Your task to perform on an android device: Go to CNN.com Image 0: 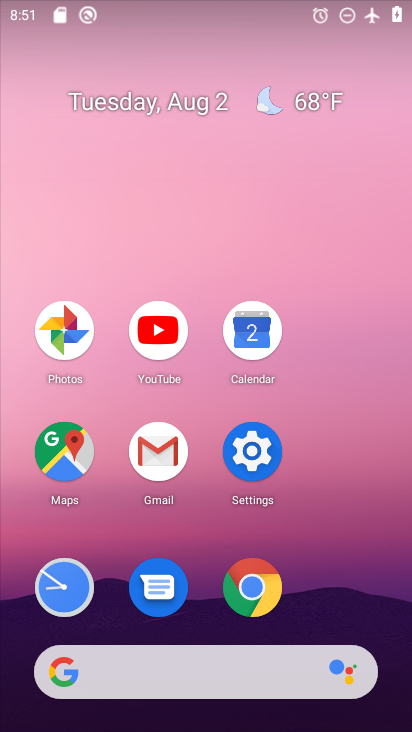
Step 0: click (260, 586)
Your task to perform on an android device: Go to CNN.com Image 1: 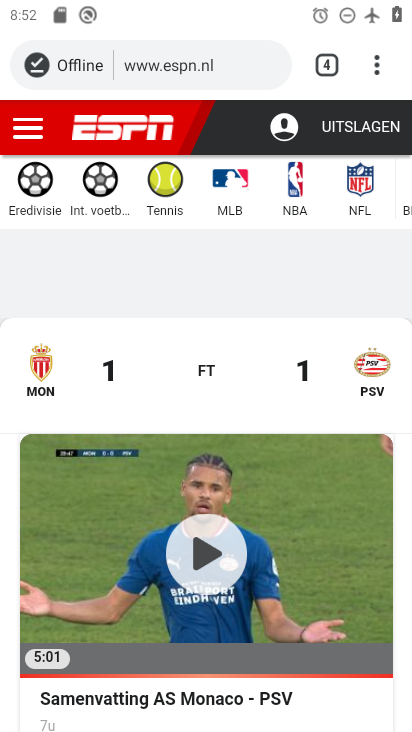
Step 1: click (379, 57)
Your task to perform on an android device: Go to CNN.com Image 2: 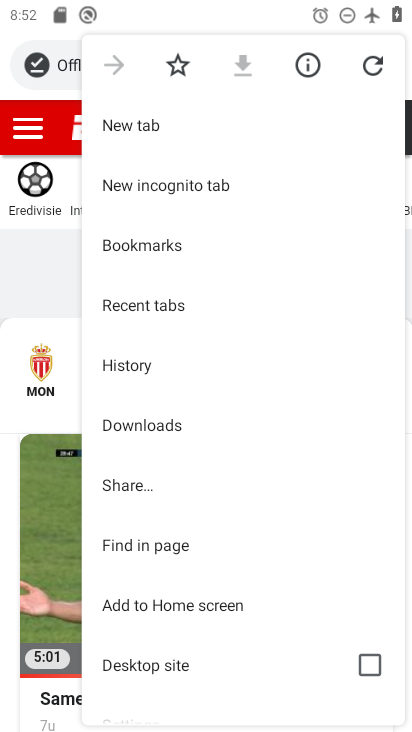
Step 2: click (128, 122)
Your task to perform on an android device: Go to CNN.com Image 3: 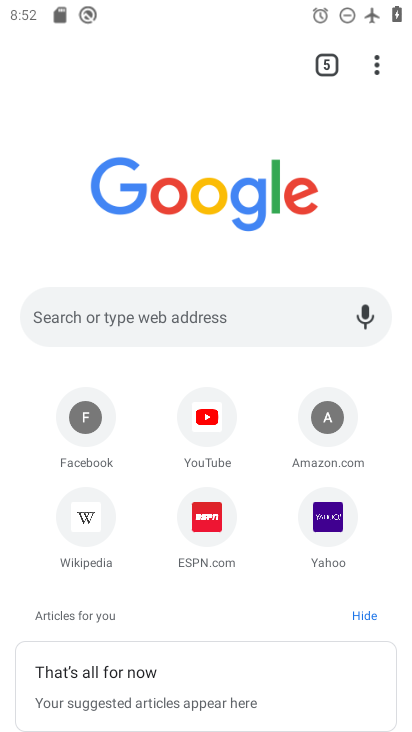
Step 3: click (169, 298)
Your task to perform on an android device: Go to CNN.com Image 4: 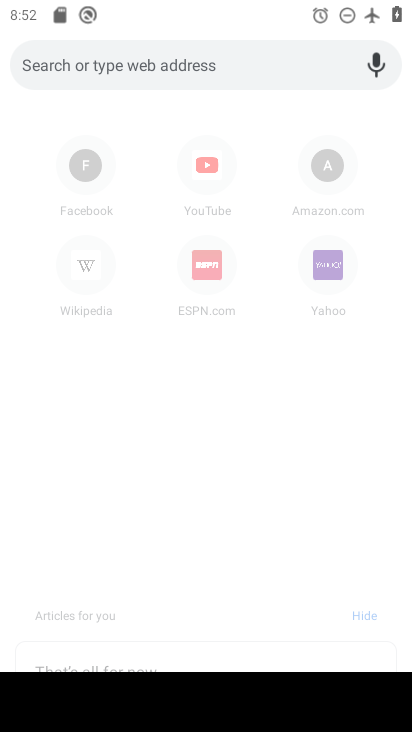
Step 4: type "cnn.com"
Your task to perform on an android device: Go to CNN.com Image 5: 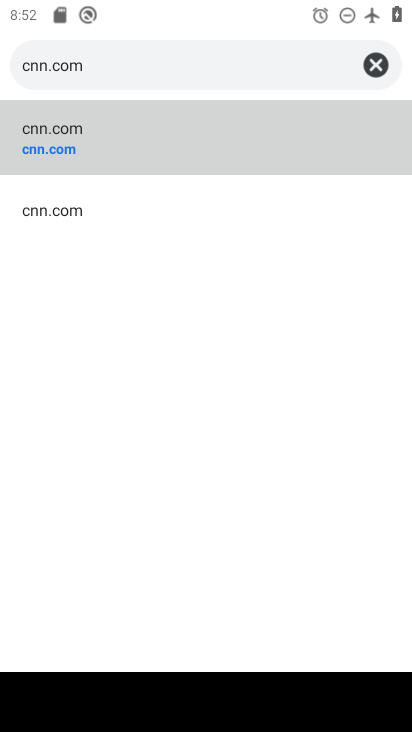
Step 5: click (37, 140)
Your task to perform on an android device: Go to CNN.com Image 6: 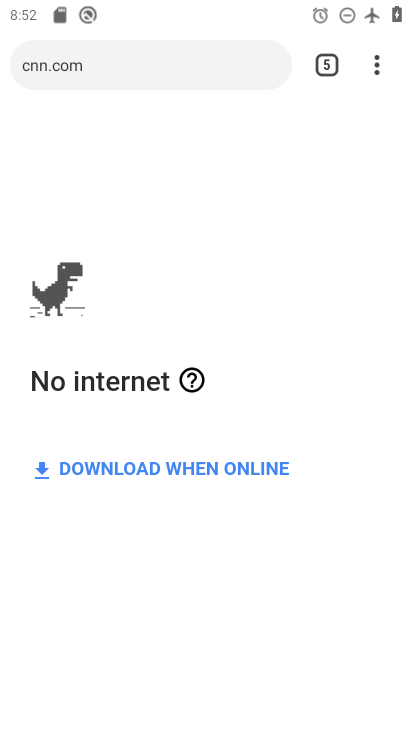
Step 6: task complete